Your task to perform on an android device: toggle show notifications on the lock screen Image 0: 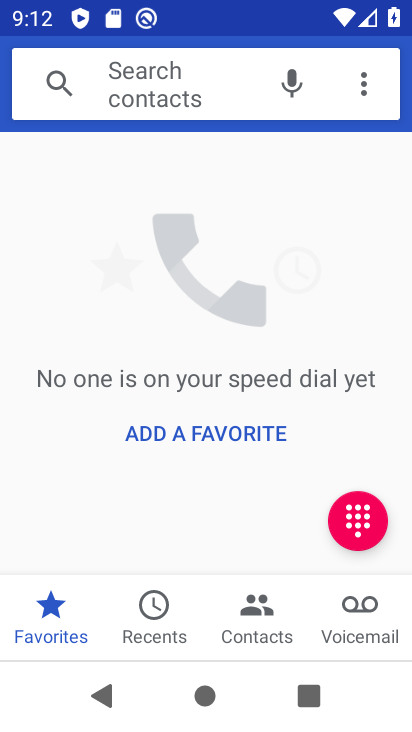
Step 0: press home button
Your task to perform on an android device: toggle show notifications on the lock screen Image 1: 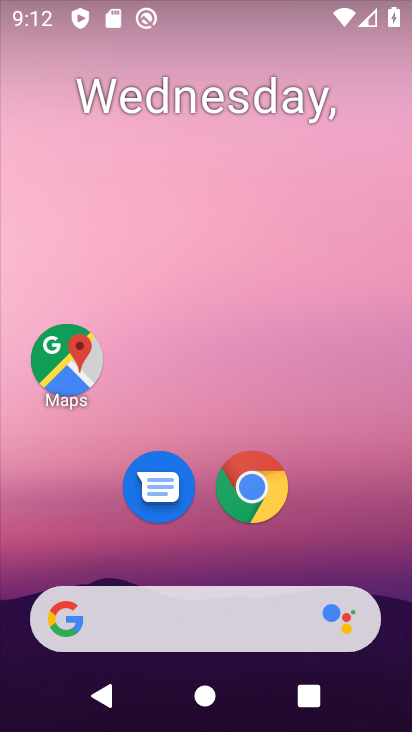
Step 1: drag from (24, 611) to (262, 192)
Your task to perform on an android device: toggle show notifications on the lock screen Image 2: 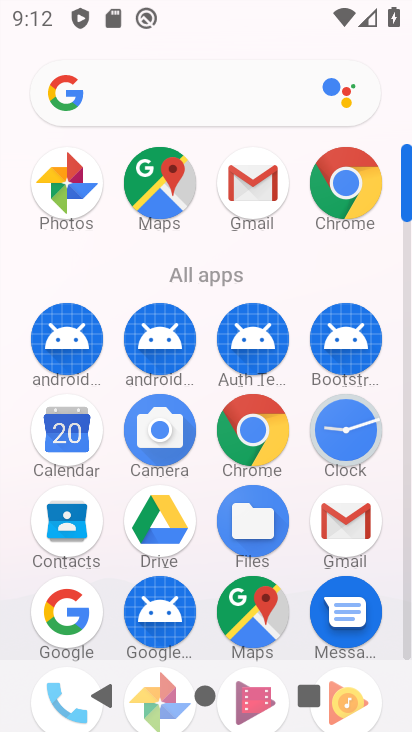
Step 2: drag from (174, 565) to (374, 240)
Your task to perform on an android device: toggle show notifications on the lock screen Image 3: 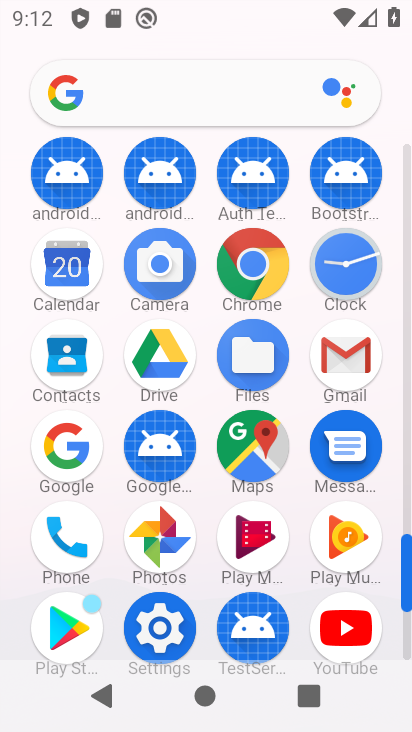
Step 3: click (146, 619)
Your task to perform on an android device: toggle show notifications on the lock screen Image 4: 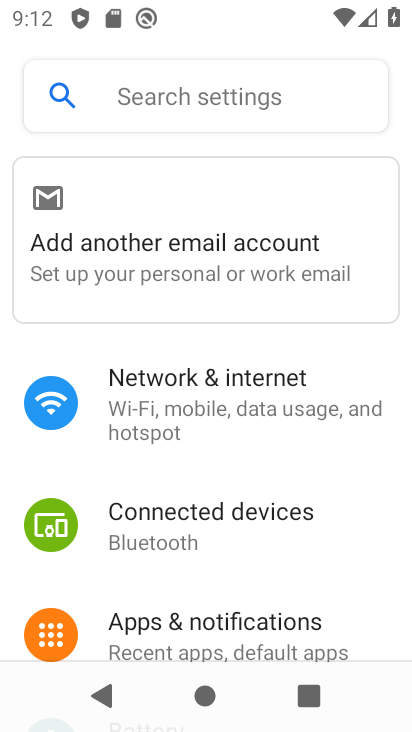
Step 4: click (168, 613)
Your task to perform on an android device: toggle show notifications on the lock screen Image 5: 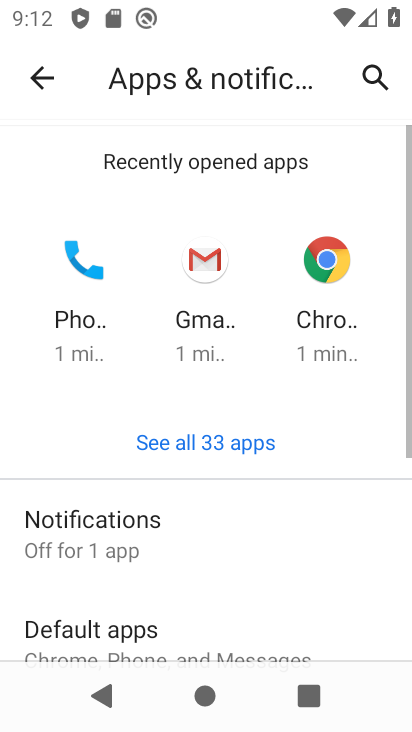
Step 5: drag from (160, 574) to (221, 278)
Your task to perform on an android device: toggle show notifications on the lock screen Image 6: 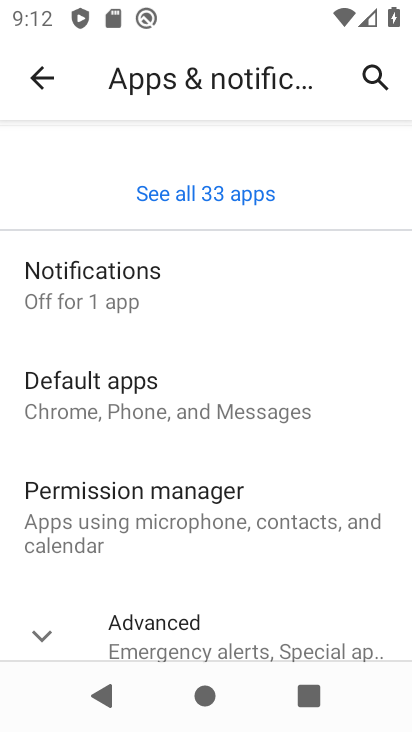
Step 6: drag from (174, 536) to (250, 260)
Your task to perform on an android device: toggle show notifications on the lock screen Image 7: 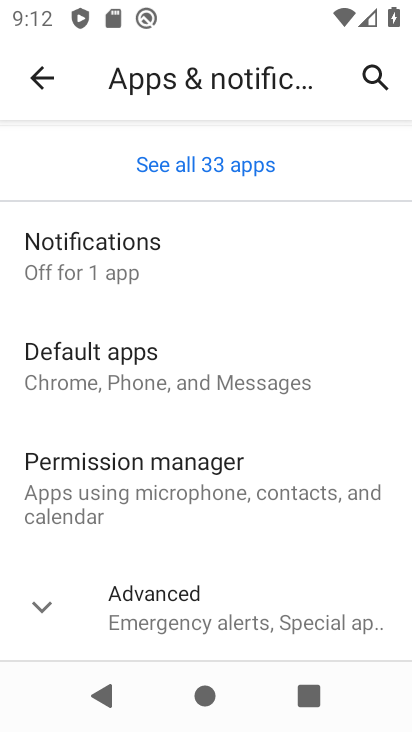
Step 7: click (176, 614)
Your task to perform on an android device: toggle show notifications on the lock screen Image 8: 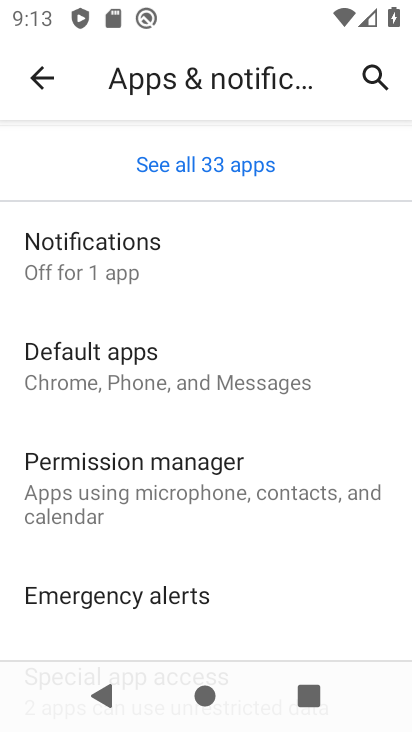
Step 8: click (146, 250)
Your task to perform on an android device: toggle show notifications on the lock screen Image 9: 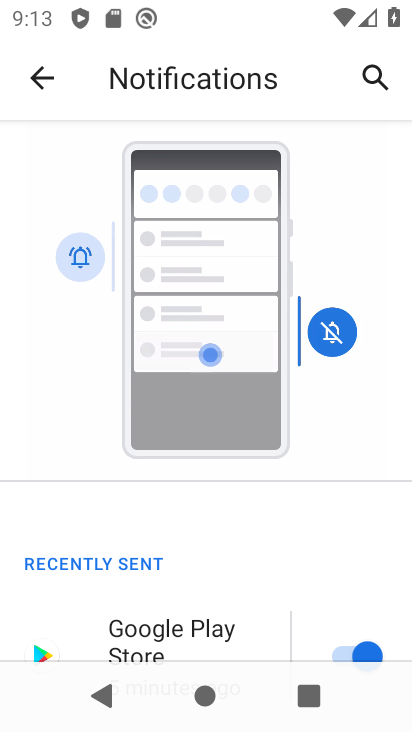
Step 9: drag from (236, 650) to (329, 273)
Your task to perform on an android device: toggle show notifications on the lock screen Image 10: 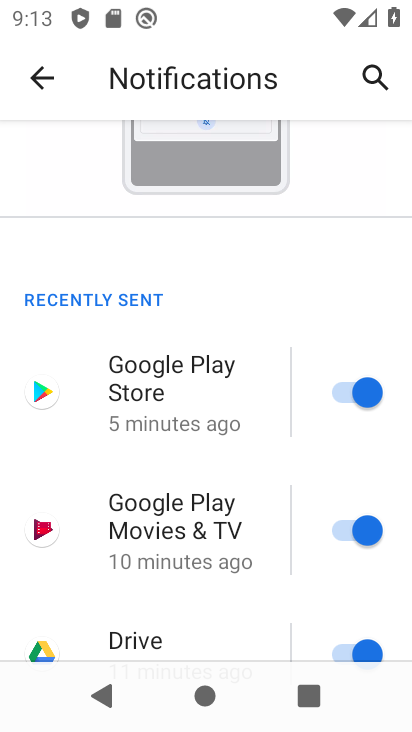
Step 10: drag from (270, 598) to (360, 251)
Your task to perform on an android device: toggle show notifications on the lock screen Image 11: 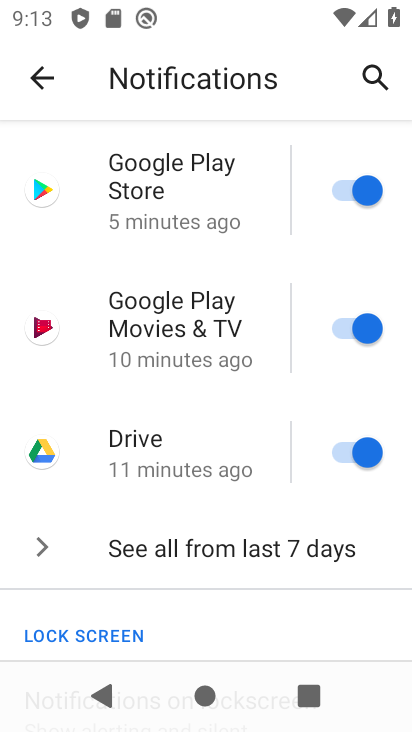
Step 11: drag from (237, 566) to (328, 259)
Your task to perform on an android device: toggle show notifications on the lock screen Image 12: 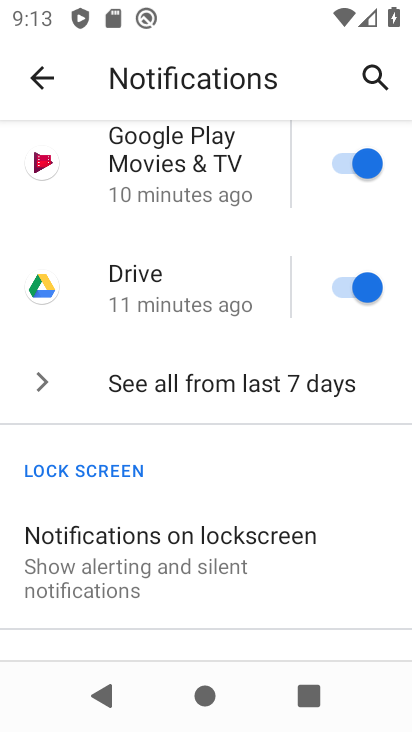
Step 12: drag from (196, 599) to (295, 288)
Your task to perform on an android device: toggle show notifications on the lock screen Image 13: 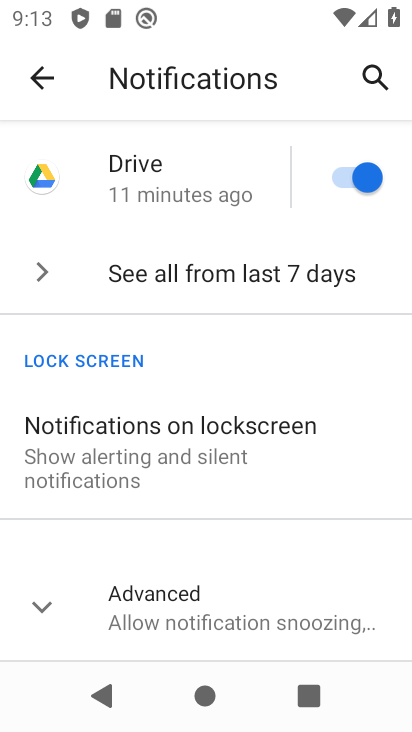
Step 13: click (227, 436)
Your task to perform on an android device: toggle show notifications on the lock screen Image 14: 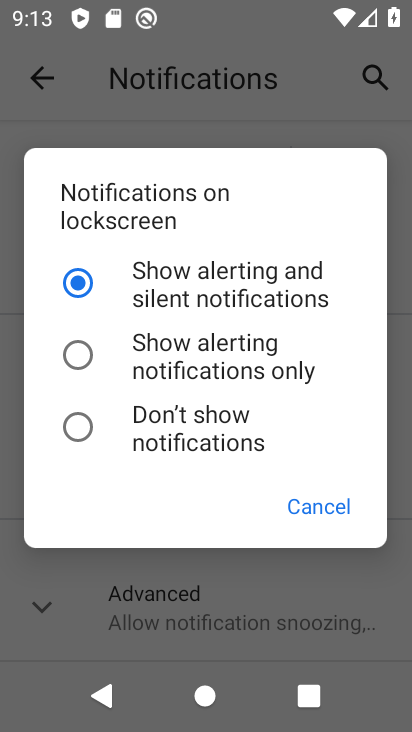
Step 14: click (81, 436)
Your task to perform on an android device: toggle show notifications on the lock screen Image 15: 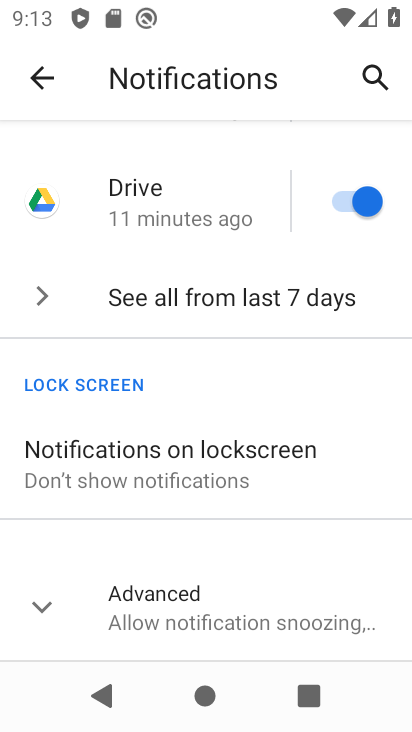
Step 15: task complete